Your task to perform on an android device: turn off improve location accuracy Image 0: 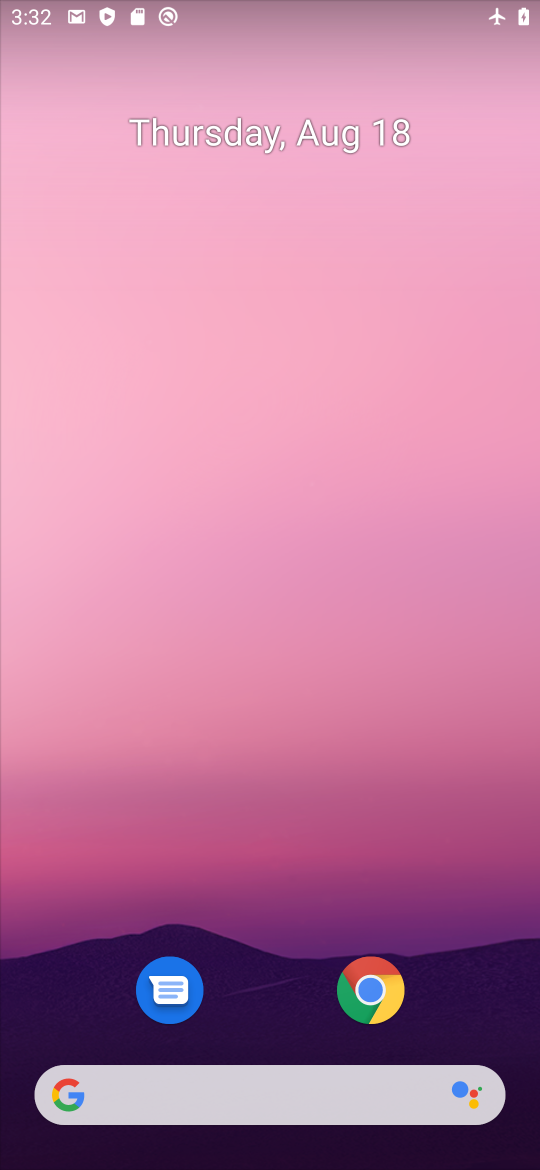
Step 0: drag from (283, 956) to (337, 54)
Your task to perform on an android device: turn off improve location accuracy Image 1: 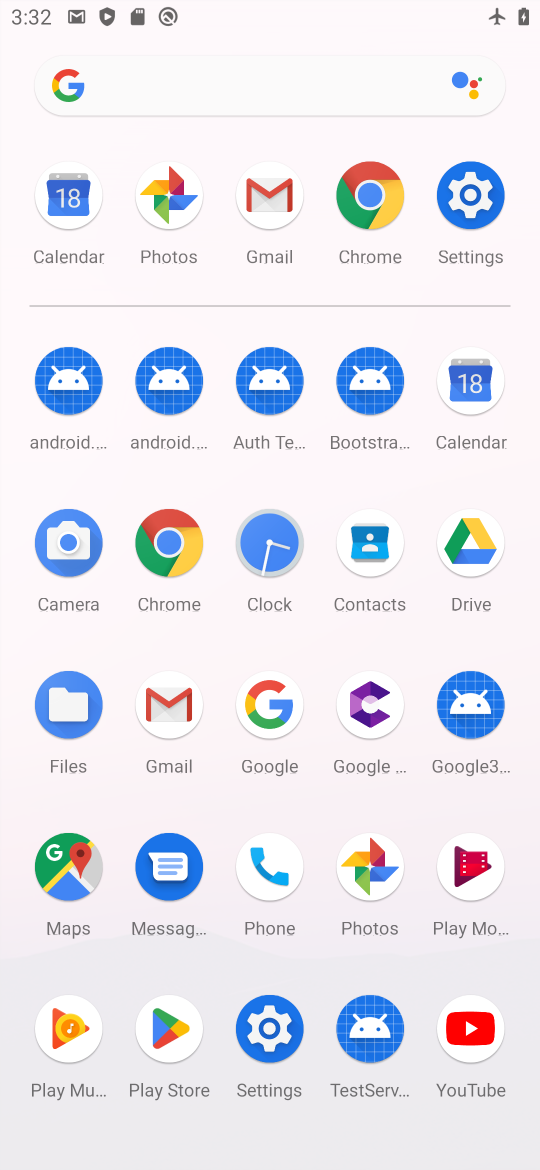
Step 1: click (269, 1023)
Your task to perform on an android device: turn off improve location accuracy Image 2: 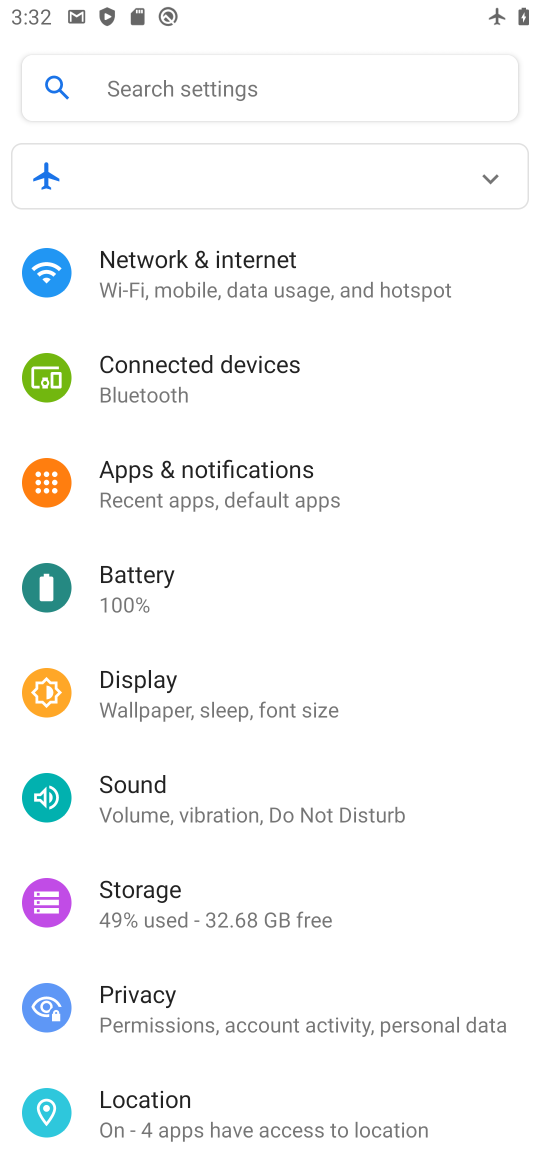
Step 2: click (192, 1111)
Your task to perform on an android device: turn off improve location accuracy Image 3: 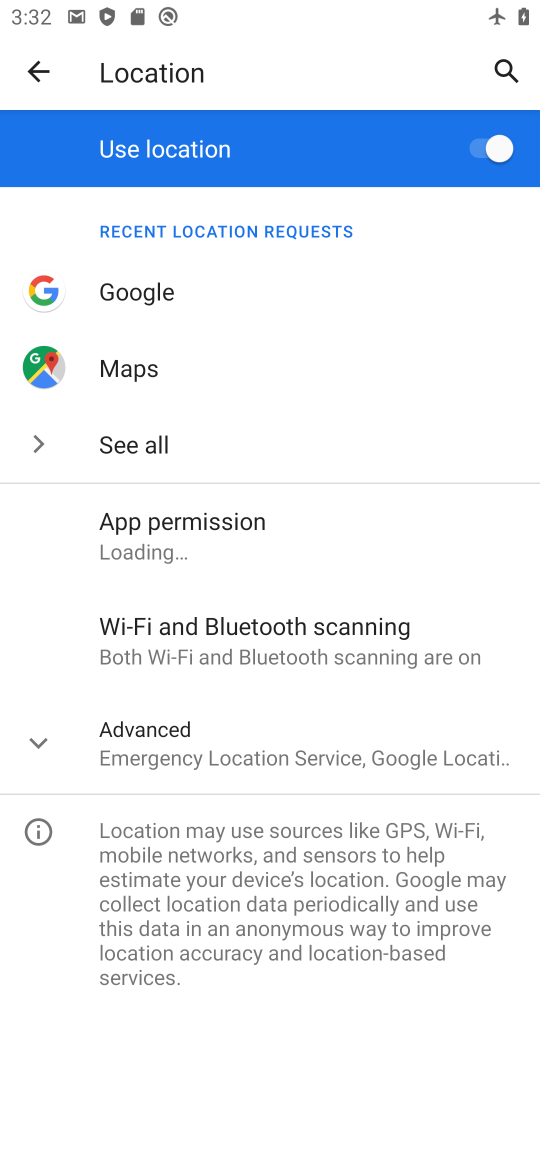
Step 3: click (158, 749)
Your task to perform on an android device: turn off improve location accuracy Image 4: 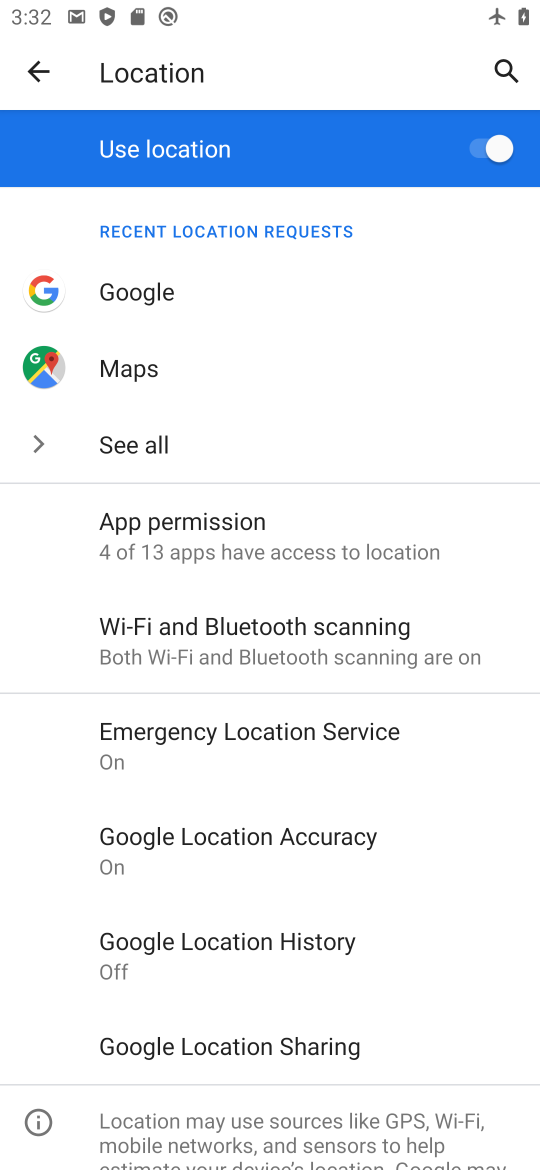
Step 4: click (276, 836)
Your task to perform on an android device: turn off improve location accuracy Image 5: 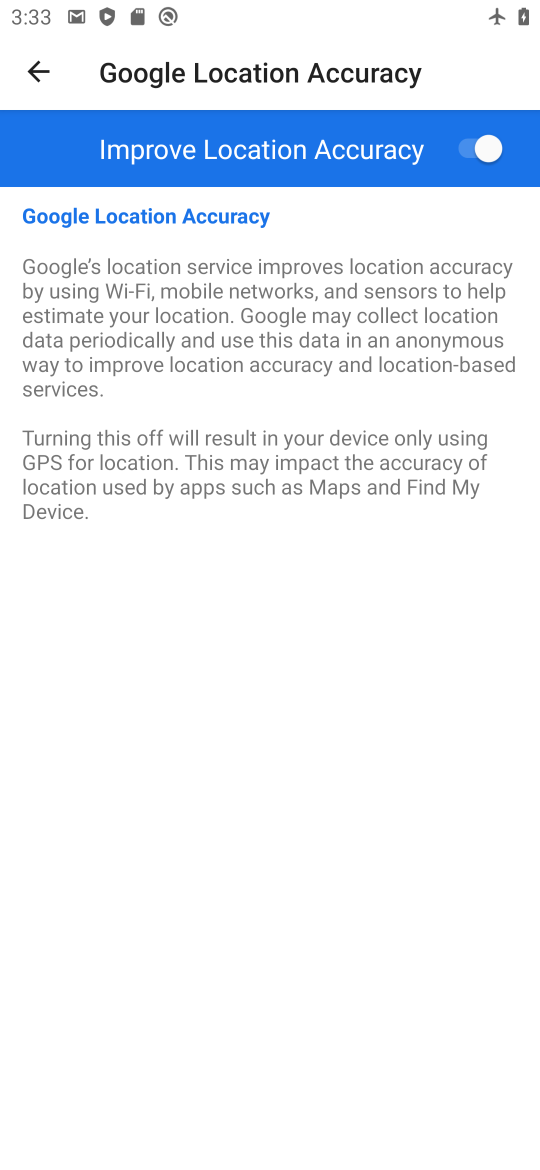
Step 5: click (492, 136)
Your task to perform on an android device: turn off improve location accuracy Image 6: 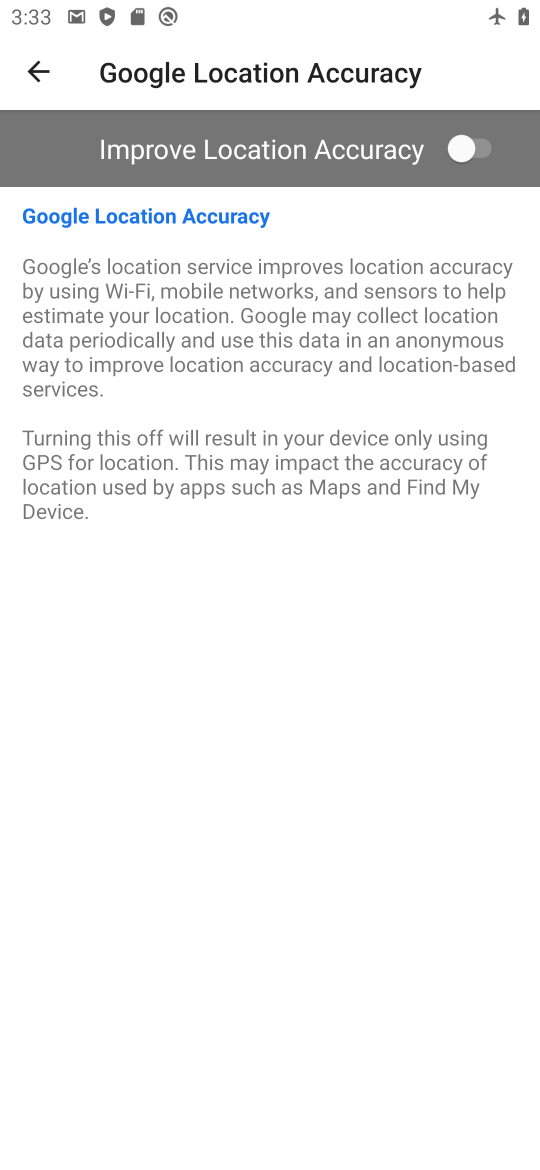
Step 6: task complete